Your task to perform on an android device: toggle priority inbox in the gmail app Image 0: 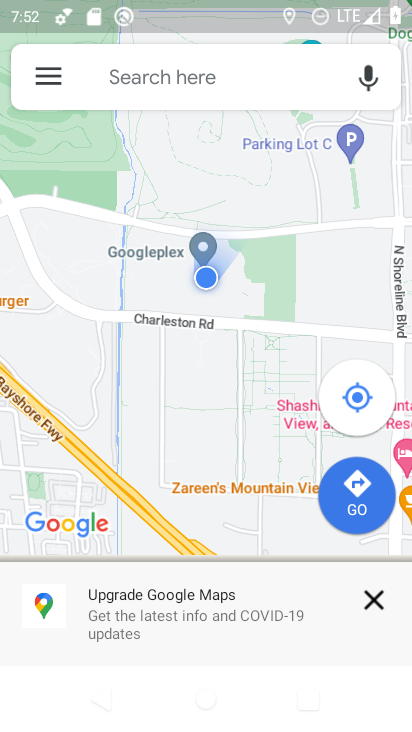
Step 0: press home button
Your task to perform on an android device: toggle priority inbox in the gmail app Image 1: 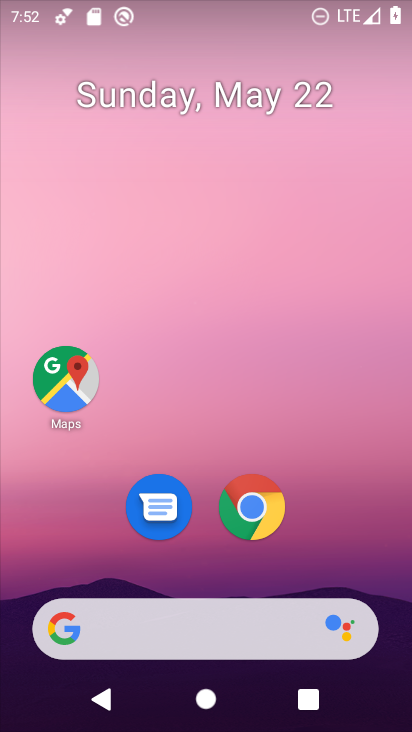
Step 1: drag from (248, 696) to (9, 163)
Your task to perform on an android device: toggle priority inbox in the gmail app Image 2: 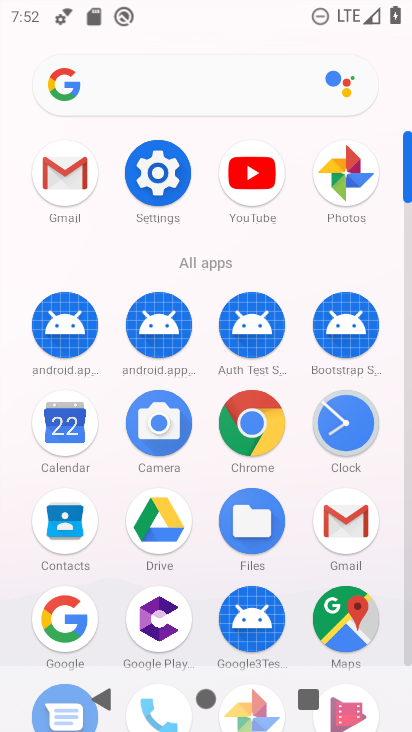
Step 2: click (42, 160)
Your task to perform on an android device: toggle priority inbox in the gmail app Image 3: 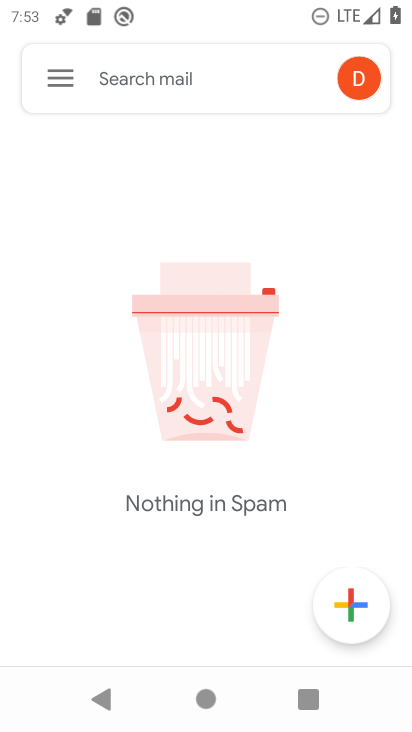
Step 3: click (57, 85)
Your task to perform on an android device: toggle priority inbox in the gmail app Image 4: 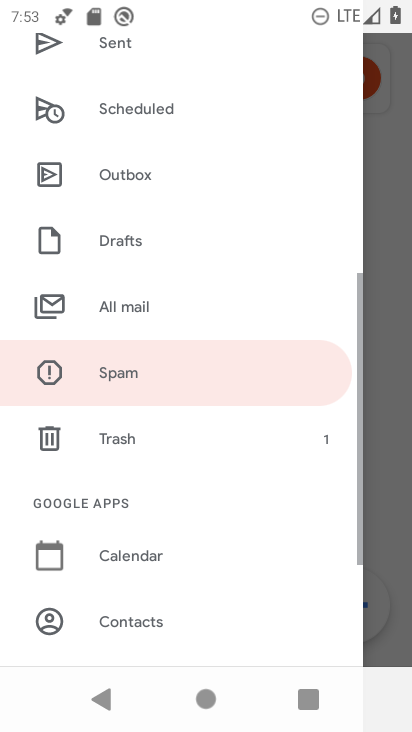
Step 4: click (201, 9)
Your task to perform on an android device: toggle priority inbox in the gmail app Image 5: 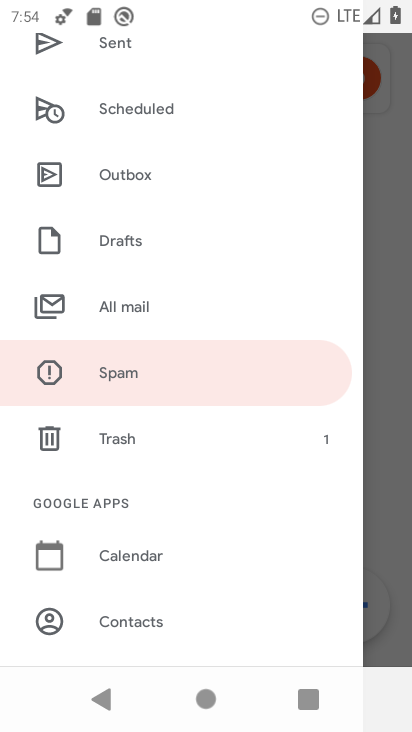
Step 5: drag from (226, 517) to (198, 63)
Your task to perform on an android device: toggle priority inbox in the gmail app Image 6: 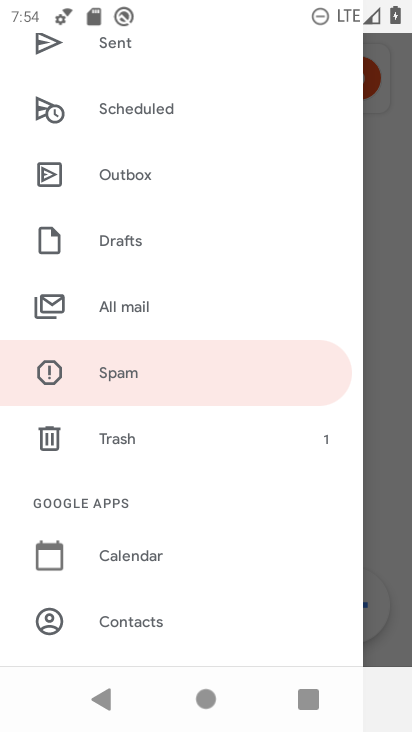
Step 6: drag from (233, 563) to (199, 24)
Your task to perform on an android device: toggle priority inbox in the gmail app Image 7: 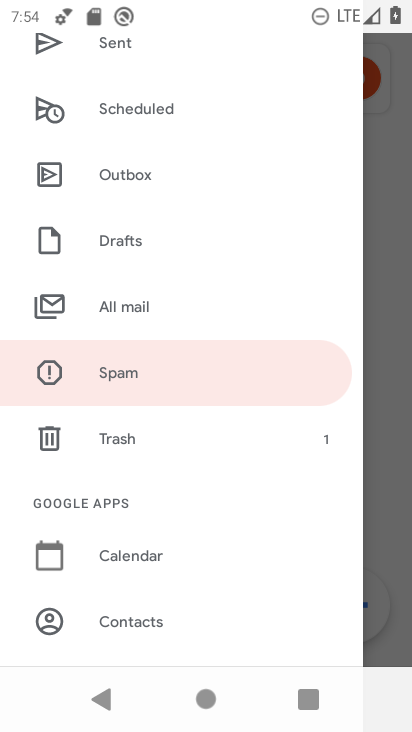
Step 7: drag from (223, 558) to (100, 16)
Your task to perform on an android device: toggle priority inbox in the gmail app Image 8: 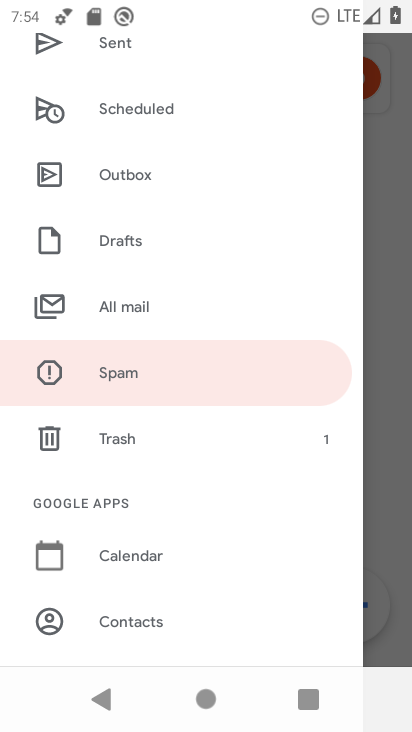
Step 8: drag from (118, 557) to (36, 5)
Your task to perform on an android device: toggle priority inbox in the gmail app Image 9: 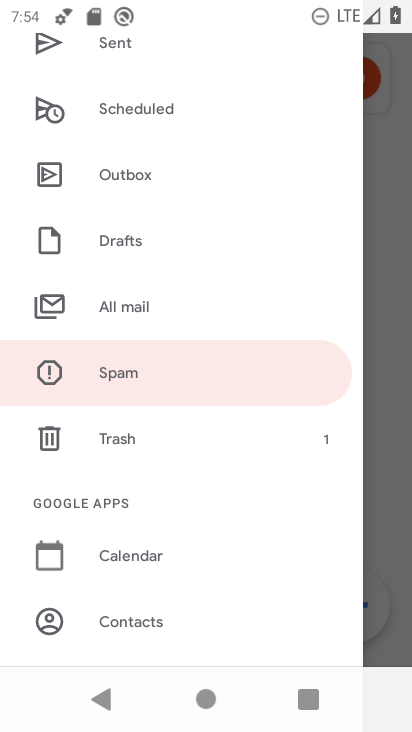
Step 9: drag from (61, 604) to (50, 21)
Your task to perform on an android device: toggle priority inbox in the gmail app Image 10: 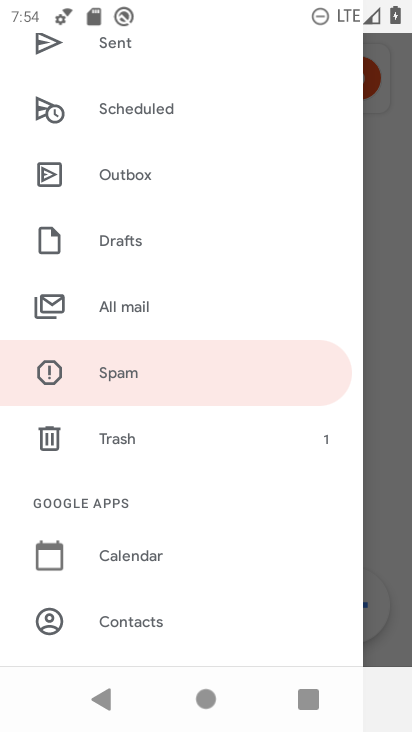
Step 10: drag from (201, 587) to (193, 23)
Your task to perform on an android device: toggle priority inbox in the gmail app Image 11: 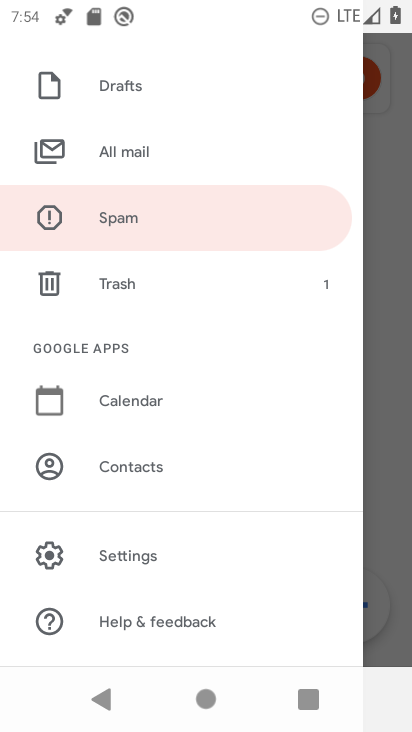
Step 11: click (166, 544)
Your task to perform on an android device: toggle priority inbox in the gmail app Image 12: 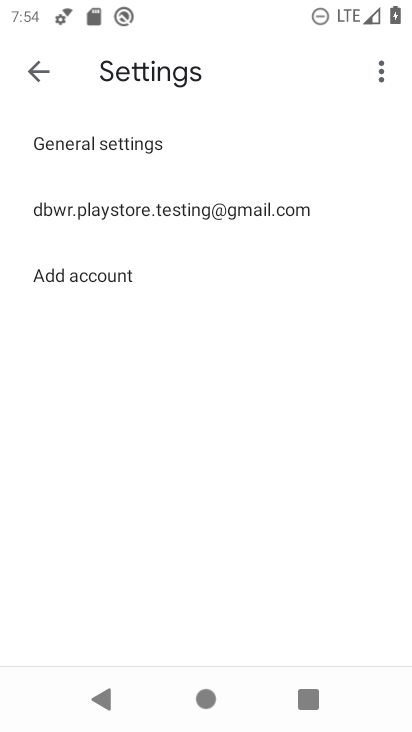
Step 12: click (178, 212)
Your task to perform on an android device: toggle priority inbox in the gmail app Image 13: 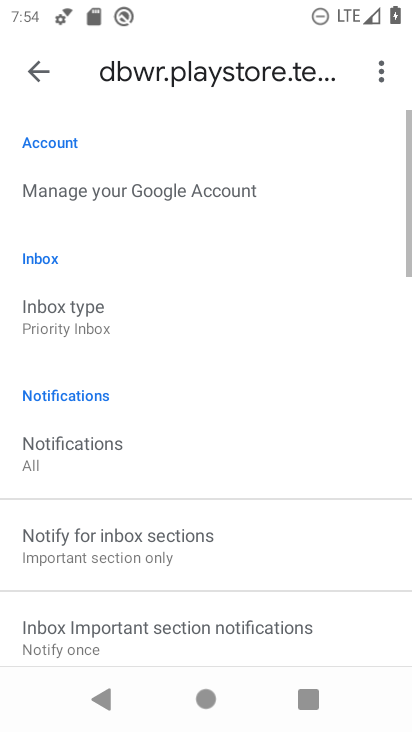
Step 13: click (94, 330)
Your task to perform on an android device: toggle priority inbox in the gmail app Image 14: 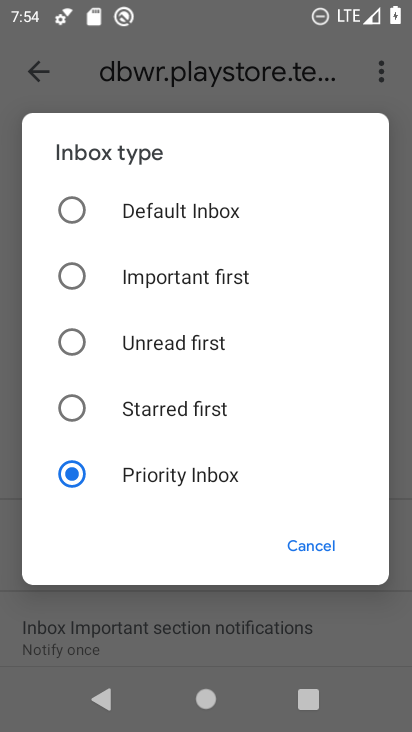
Step 14: click (56, 207)
Your task to perform on an android device: toggle priority inbox in the gmail app Image 15: 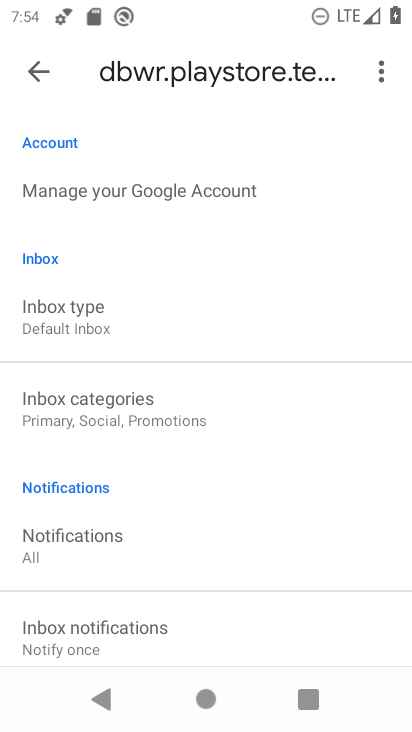
Step 15: task complete